Your task to perform on an android device: Is it going to rain this weekend? Image 0: 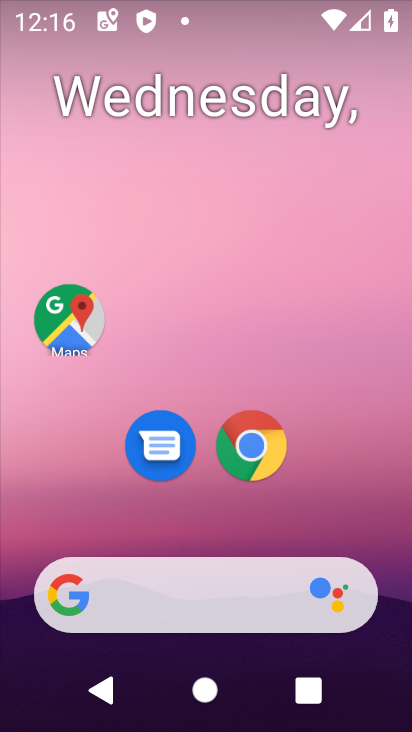
Step 0: drag from (308, 486) to (254, 5)
Your task to perform on an android device: Is it going to rain this weekend? Image 1: 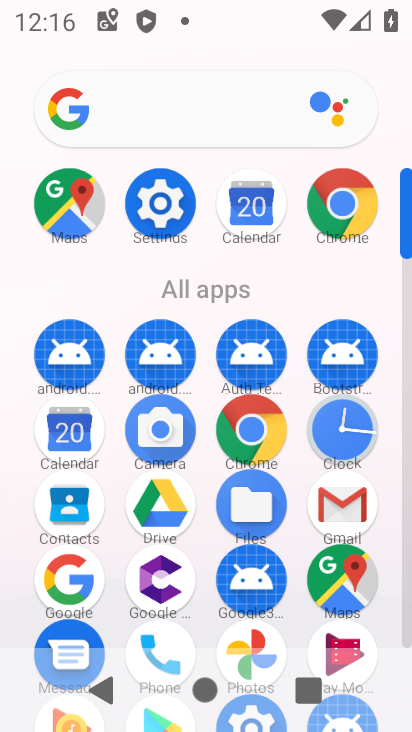
Step 1: click (241, 419)
Your task to perform on an android device: Is it going to rain this weekend? Image 2: 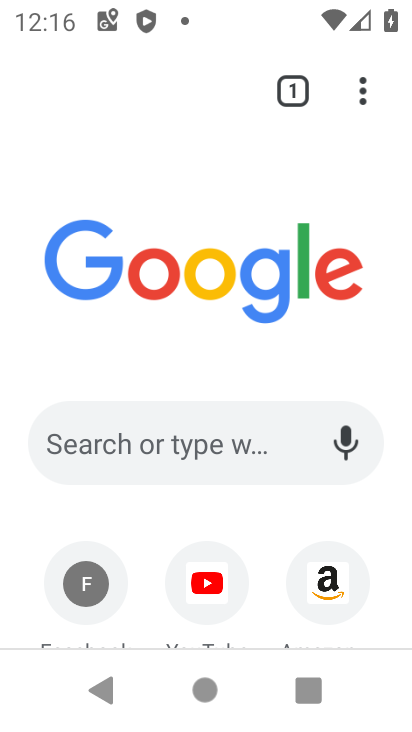
Step 2: click (199, 460)
Your task to perform on an android device: Is it going to rain this weekend? Image 3: 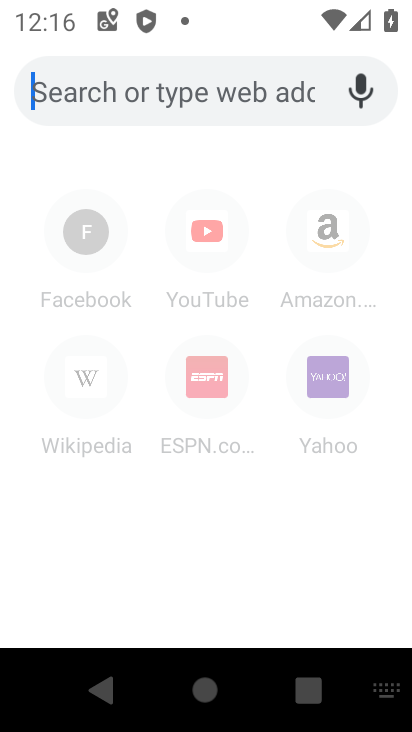
Step 3: type "weather"
Your task to perform on an android device: Is it going to rain this weekend? Image 4: 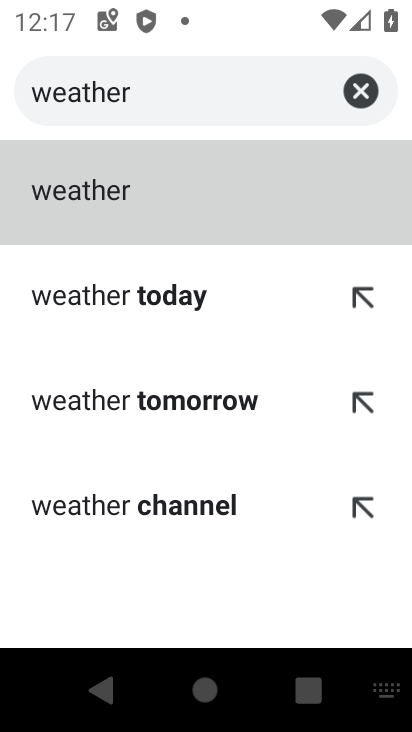
Step 4: click (87, 170)
Your task to perform on an android device: Is it going to rain this weekend? Image 5: 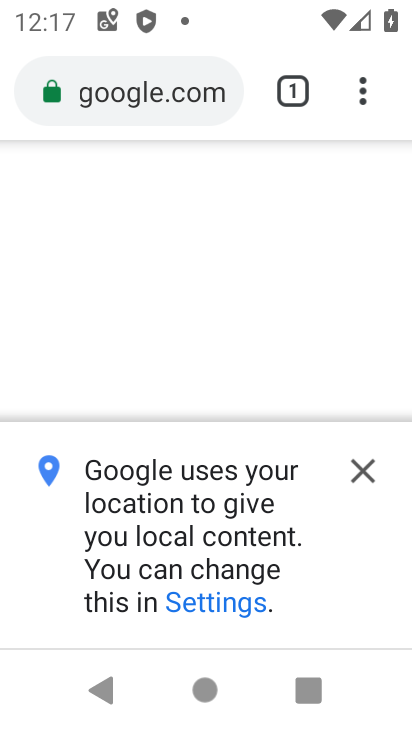
Step 5: click (361, 475)
Your task to perform on an android device: Is it going to rain this weekend? Image 6: 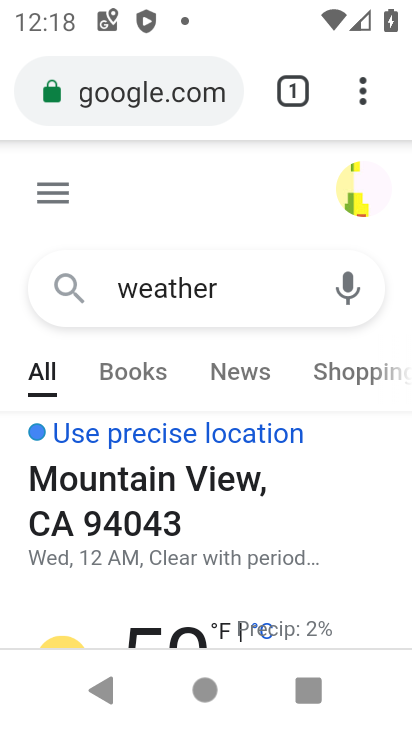
Step 6: task complete